Your task to perform on an android device: Clear the shopping cart on costco.com. Add "logitech g pro" to the cart on costco.com, then select checkout. Image 0: 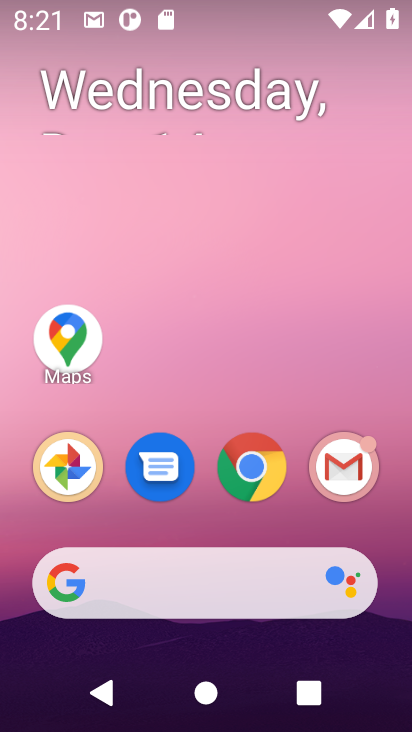
Step 0: click (270, 484)
Your task to perform on an android device: Clear the shopping cart on costco.com. Add "logitech g pro" to the cart on costco.com, then select checkout. Image 1: 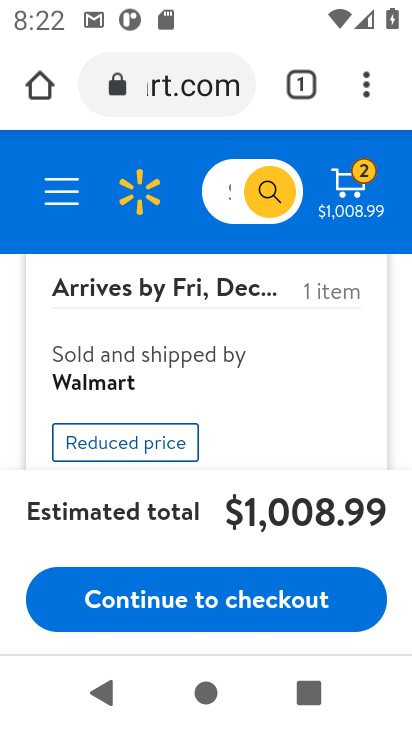
Step 1: press home button
Your task to perform on an android device: Clear the shopping cart on costco.com. Add "logitech g pro" to the cart on costco.com, then select checkout. Image 2: 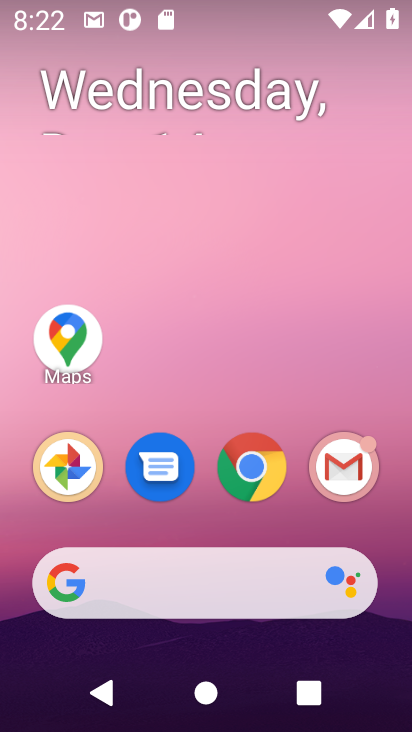
Step 2: click (205, 559)
Your task to perform on an android device: Clear the shopping cart on costco.com. Add "logitech g pro" to the cart on costco.com, then select checkout. Image 3: 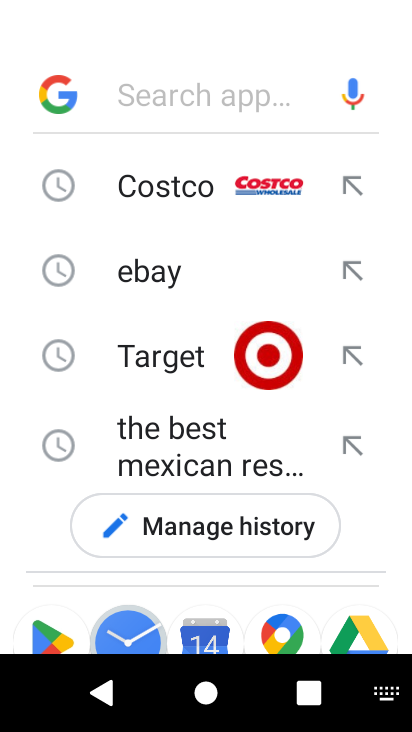
Step 3: click (179, 179)
Your task to perform on an android device: Clear the shopping cart on costco.com. Add "logitech g pro" to the cart on costco.com, then select checkout. Image 4: 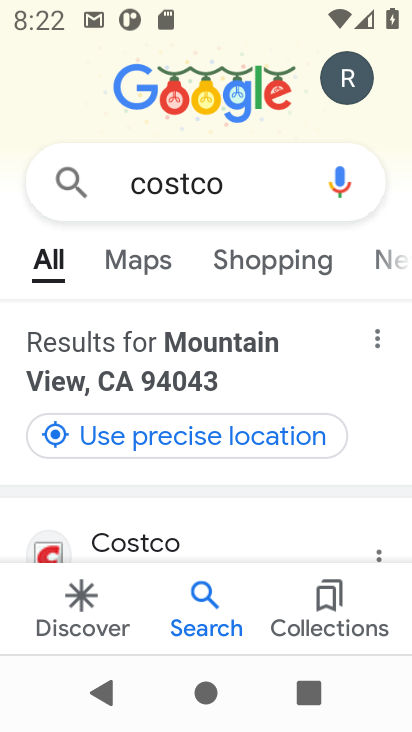
Step 4: click (86, 557)
Your task to perform on an android device: Clear the shopping cart on costco.com. Add "logitech g pro" to the cart on costco.com, then select checkout. Image 5: 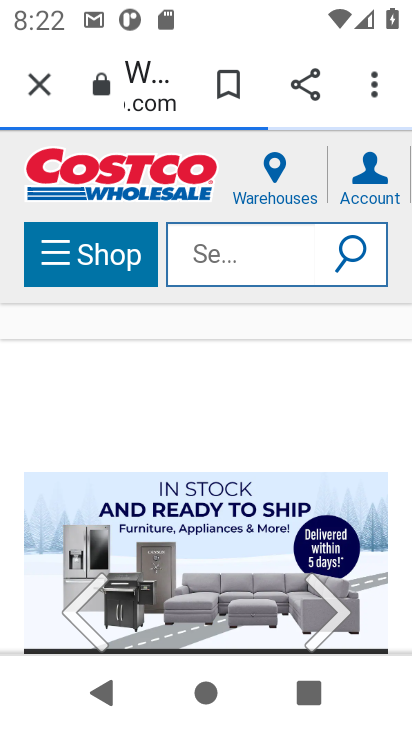
Step 5: click (260, 250)
Your task to perform on an android device: Clear the shopping cart on costco.com. Add "logitech g pro" to the cart on costco.com, then select checkout. Image 6: 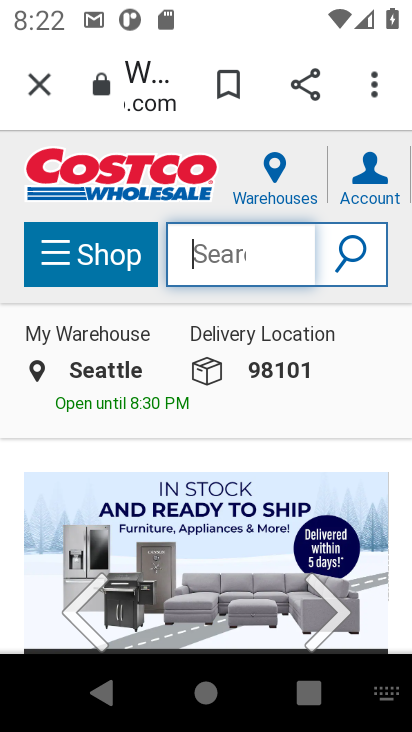
Step 6: type "logitech g pro"
Your task to perform on an android device: Clear the shopping cart on costco.com. Add "logitech g pro" to the cart on costco.com, then select checkout. Image 7: 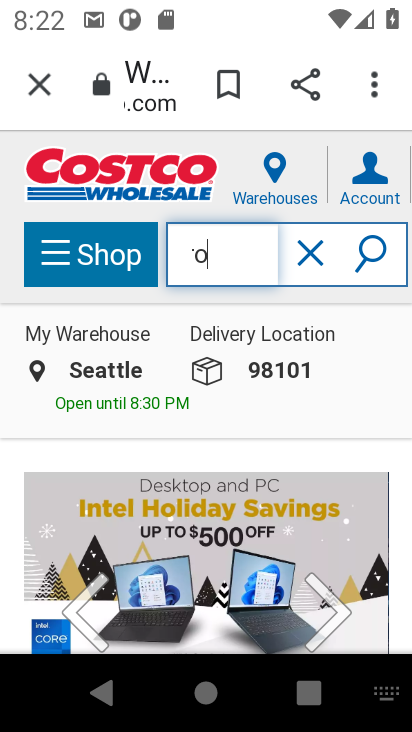
Step 7: click (350, 255)
Your task to perform on an android device: Clear the shopping cart on costco.com. Add "logitech g pro" to the cart on costco.com, then select checkout. Image 8: 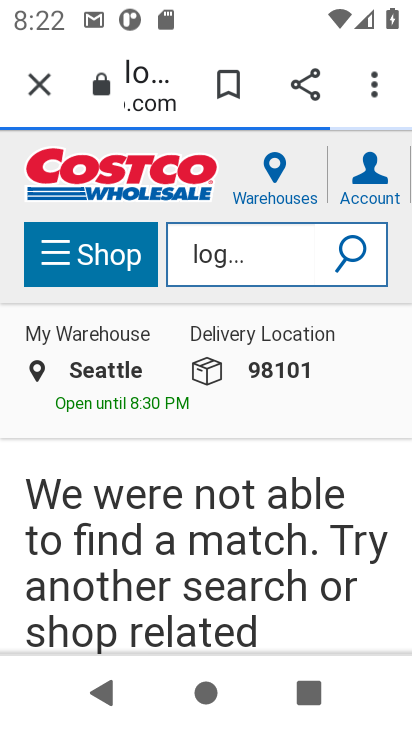
Step 8: task complete